Your task to perform on an android device: Open CNN.com Image 0: 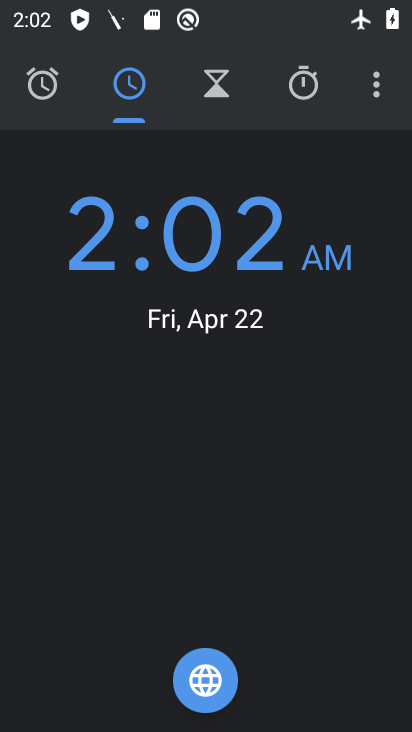
Step 0: press home button
Your task to perform on an android device: Open CNN.com Image 1: 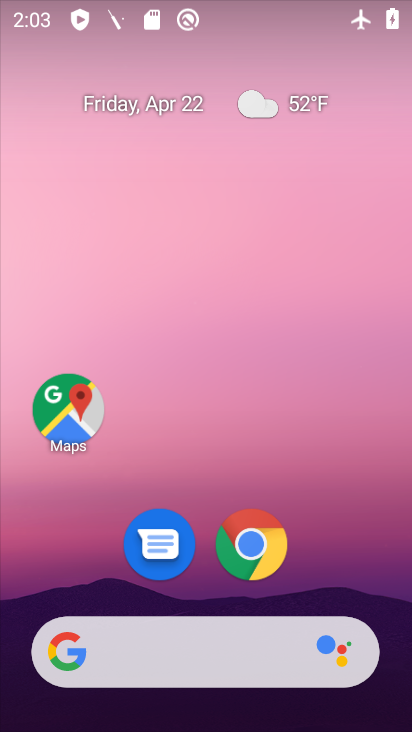
Step 1: click (249, 546)
Your task to perform on an android device: Open CNN.com Image 2: 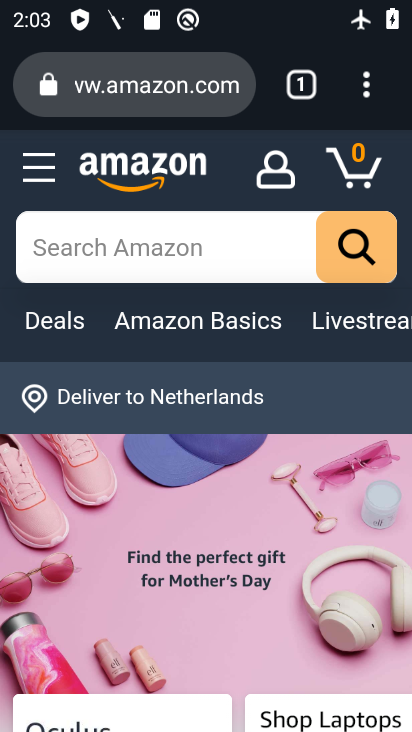
Step 2: click (144, 82)
Your task to perform on an android device: Open CNN.com Image 3: 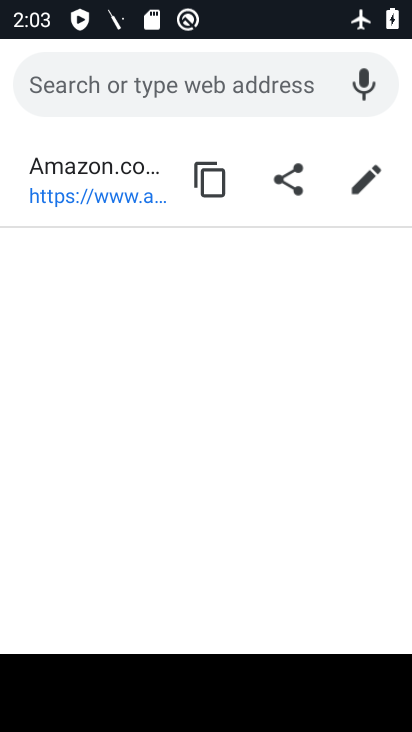
Step 3: type "cnn.com"
Your task to perform on an android device: Open CNN.com Image 4: 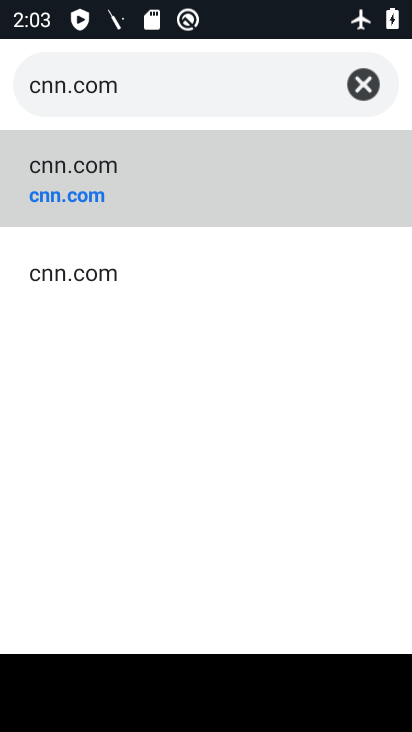
Step 4: click (271, 157)
Your task to perform on an android device: Open CNN.com Image 5: 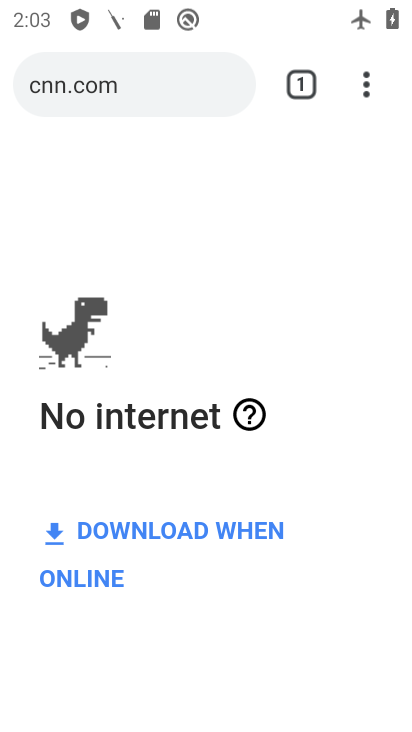
Step 5: drag from (266, 8) to (277, 524)
Your task to perform on an android device: Open CNN.com Image 6: 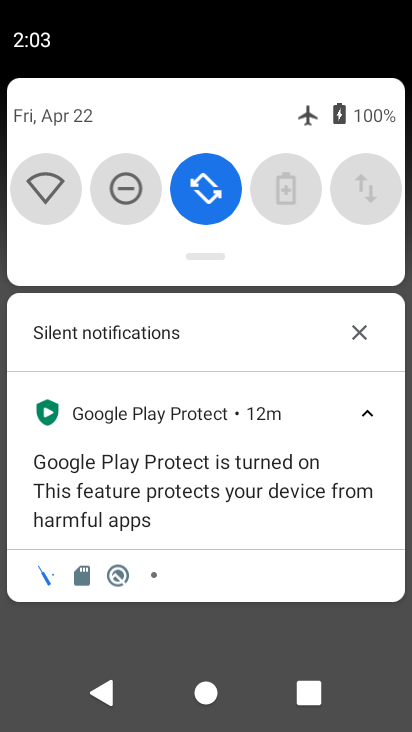
Step 6: drag from (249, 118) to (317, 575)
Your task to perform on an android device: Open CNN.com Image 7: 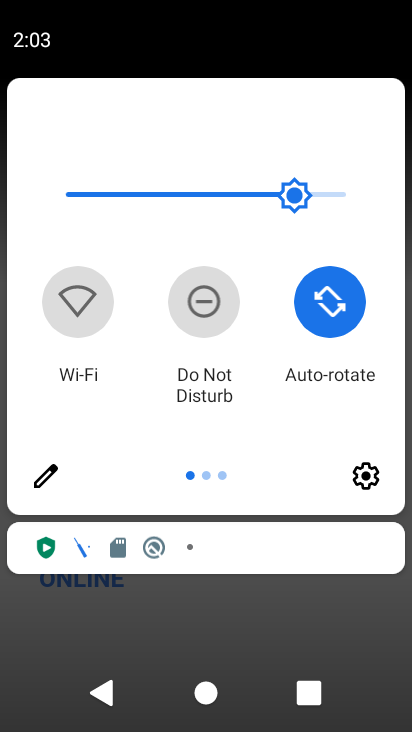
Step 7: drag from (344, 414) to (63, 430)
Your task to perform on an android device: Open CNN.com Image 8: 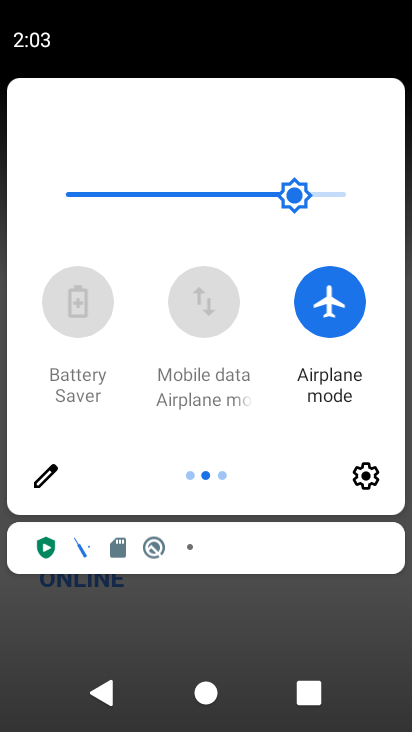
Step 8: click (357, 310)
Your task to perform on an android device: Open CNN.com Image 9: 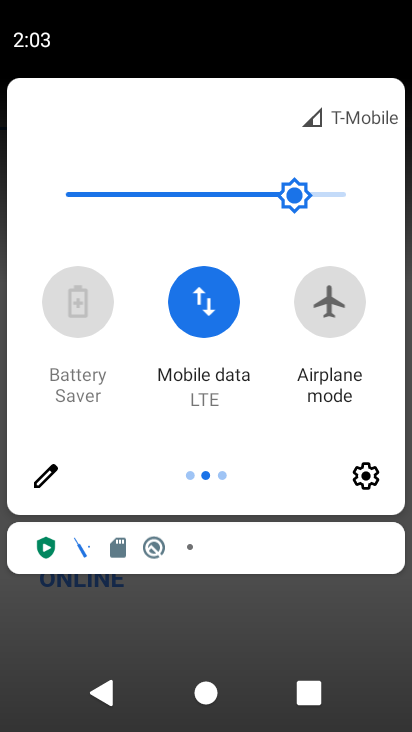
Step 9: task complete